Your task to perform on an android device: toggle javascript in the chrome app Image 0: 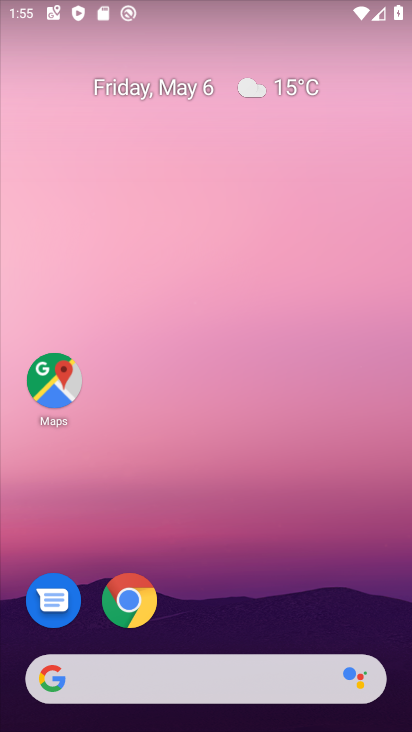
Step 0: drag from (350, 600) to (293, 35)
Your task to perform on an android device: toggle javascript in the chrome app Image 1: 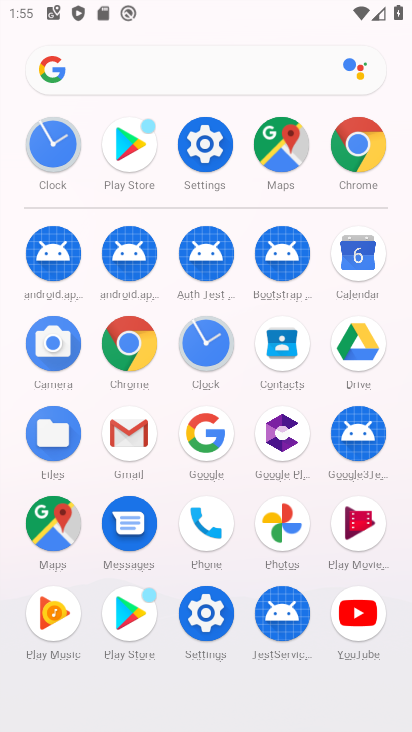
Step 1: click (360, 140)
Your task to perform on an android device: toggle javascript in the chrome app Image 2: 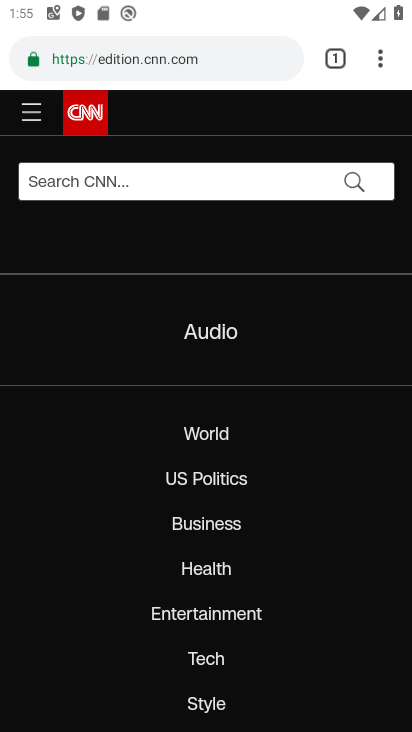
Step 2: press back button
Your task to perform on an android device: toggle javascript in the chrome app Image 3: 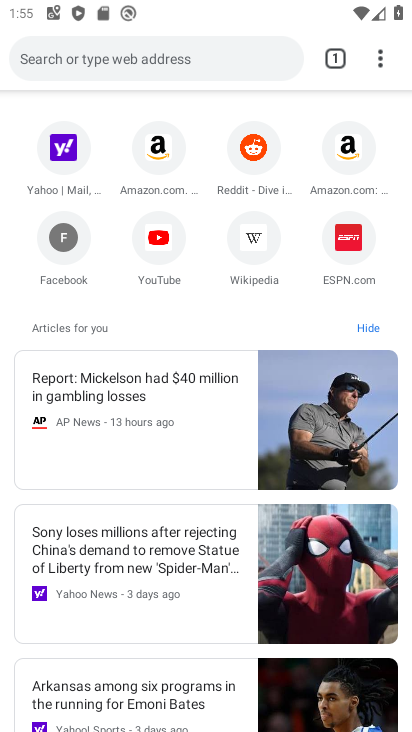
Step 3: click (374, 55)
Your task to perform on an android device: toggle javascript in the chrome app Image 4: 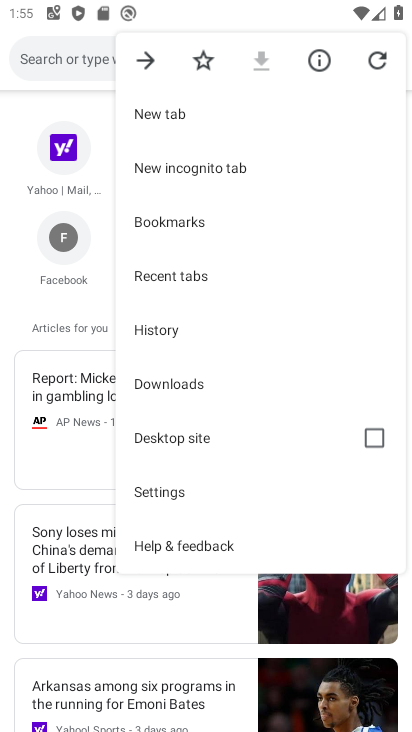
Step 4: click (222, 484)
Your task to perform on an android device: toggle javascript in the chrome app Image 5: 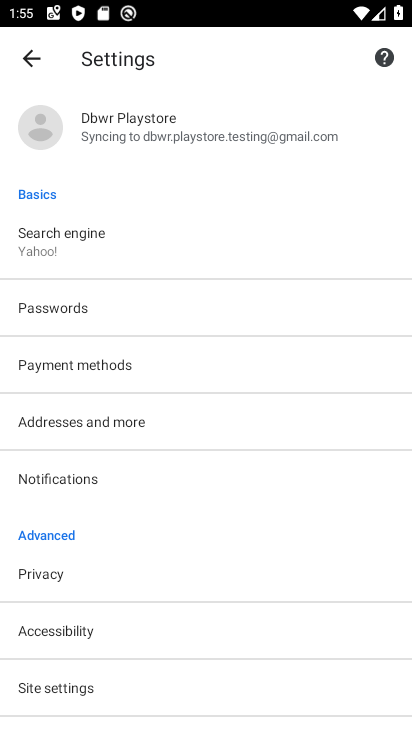
Step 5: drag from (107, 637) to (202, 264)
Your task to perform on an android device: toggle javascript in the chrome app Image 6: 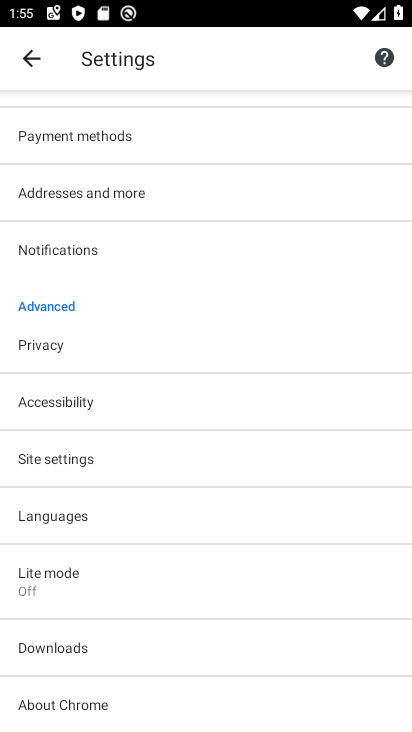
Step 6: click (167, 436)
Your task to perform on an android device: toggle javascript in the chrome app Image 7: 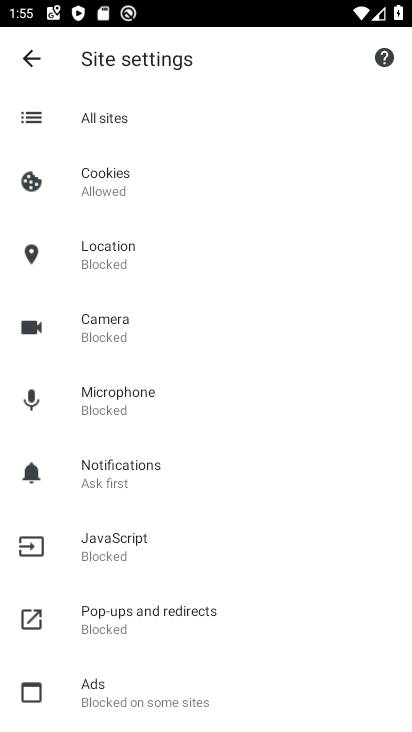
Step 7: click (163, 547)
Your task to perform on an android device: toggle javascript in the chrome app Image 8: 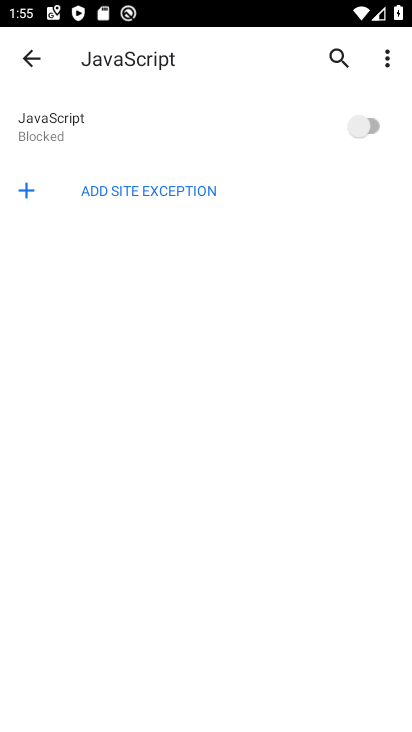
Step 8: click (382, 136)
Your task to perform on an android device: toggle javascript in the chrome app Image 9: 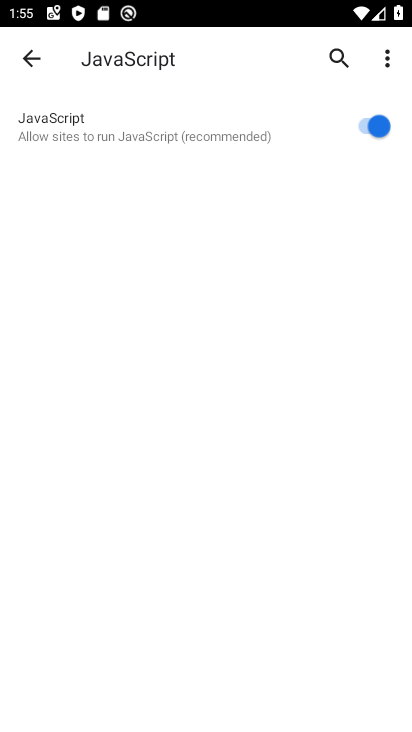
Step 9: task complete